Your task to perform on an android device: open wifi settings Image 0: 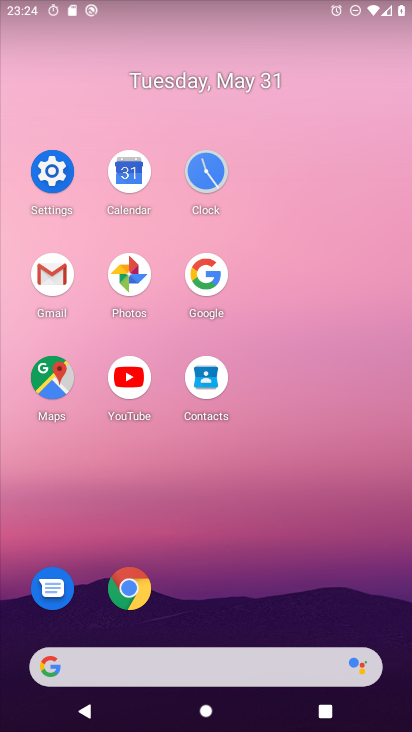
Step 0: click (57, 180)
Your task to perform on an android device: open wifi settings Image 1: 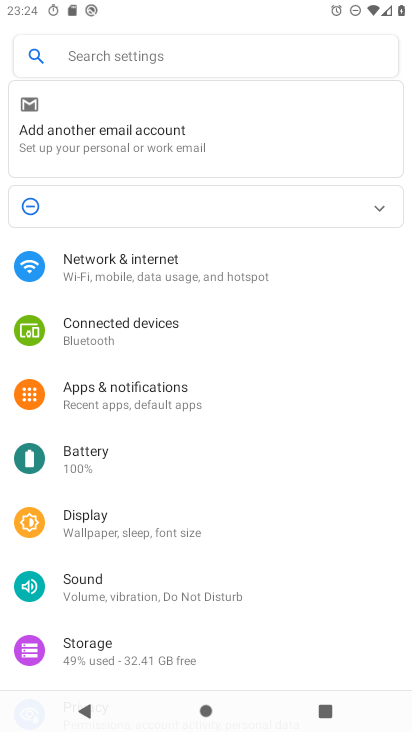
Step 1: click (217, 275)
Your task to perform on an android device: open wifi settings Image 2: 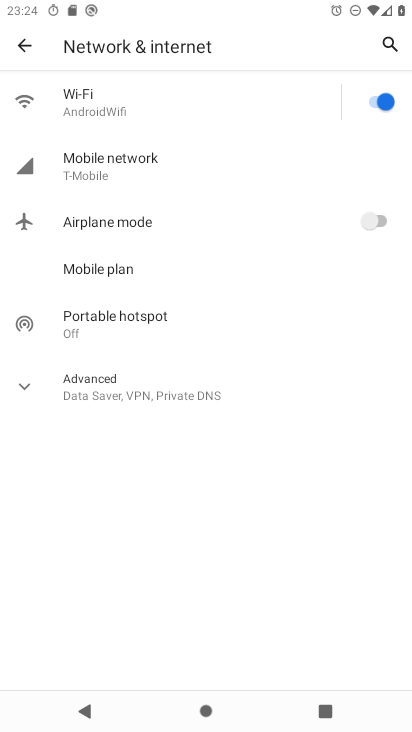
Step 2: click (168, 111)
Your task to perform on an android device: open wifi settings Image 3: 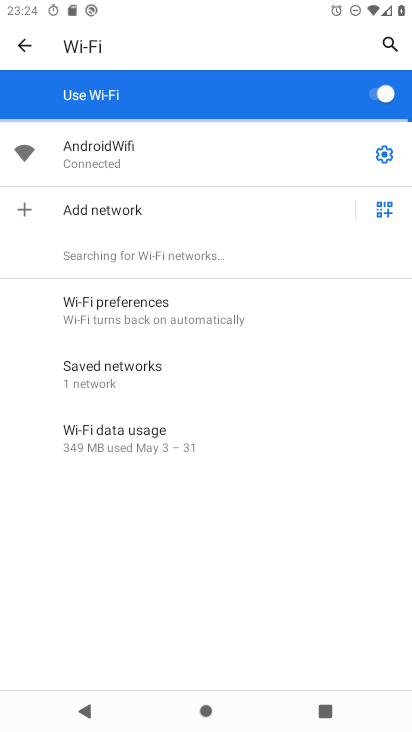
Step 3: click (381, 157)
Your task to perform on an android device: open wifi settings Image 4: 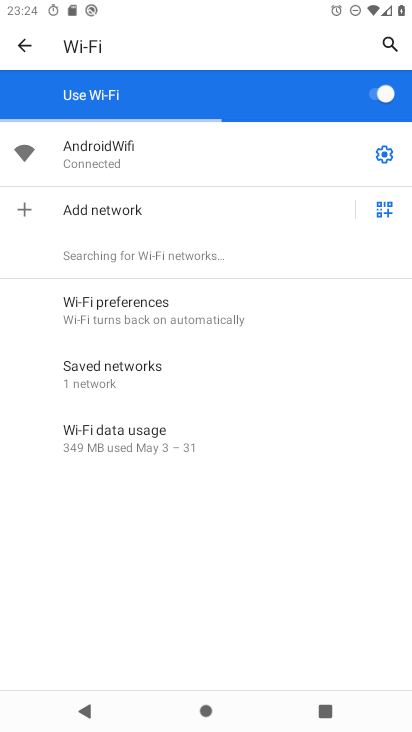
Step 4: click (385, 160)
Your task to perform on an android device: open wifi settings Image 5: 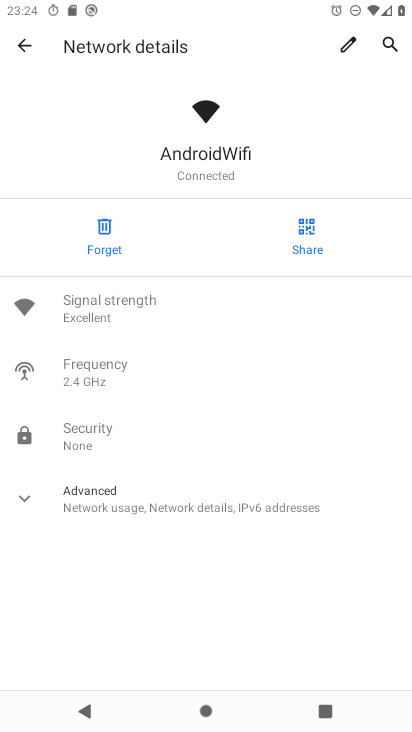
Step 5: task complete